Your task to perform on an android device: turn on improve location accuracy Image 0: 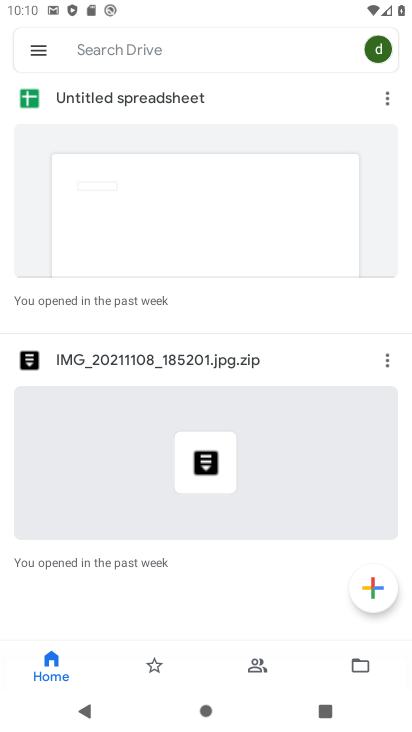
Step 0: press home button
Your task to perform on an android device: turn on improve location accuracy Image 1: 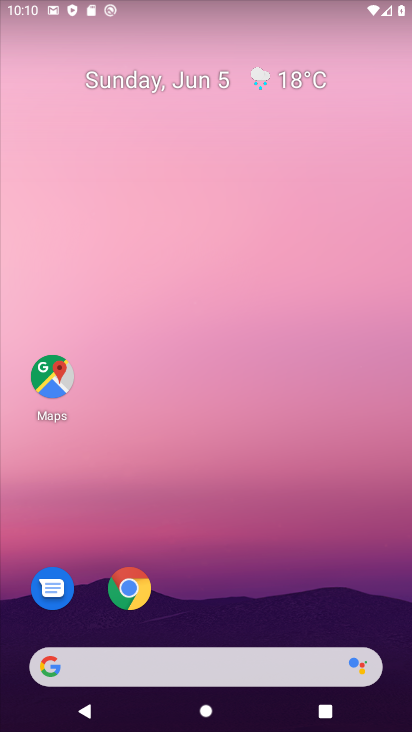
Step 1: drag from (299, 592) to (272, 232)
Your task to perform on an android device: turn on improve location accuracy Image 2: 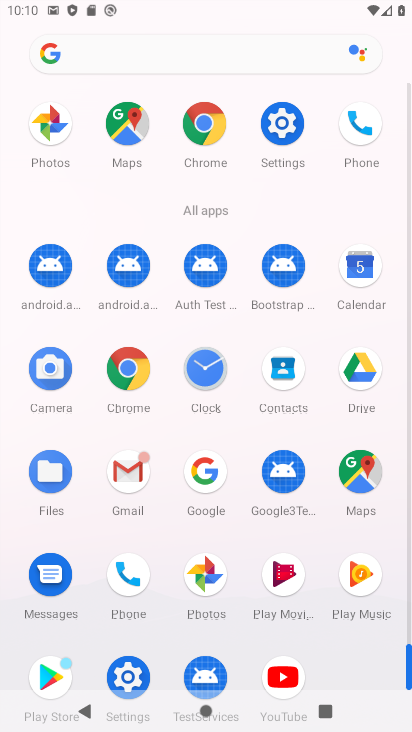
Step 2: click (138, 668)
Your task to perform on an android device: turn on improve location accuracy Image 3: 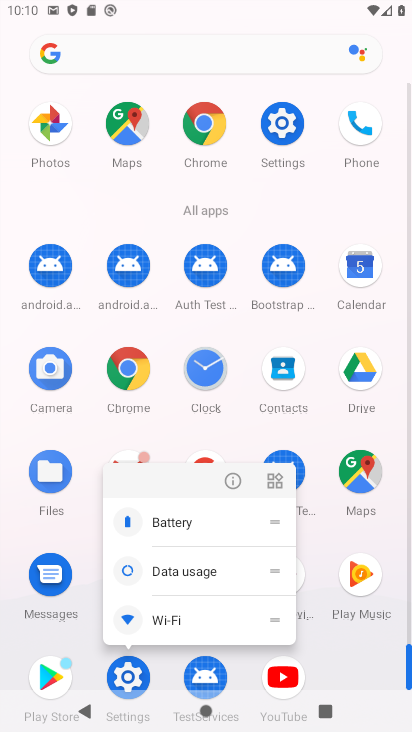
Step 3: click (285, 112)
Your task to perform on an android device: turn on improve location accuracy Image 4: 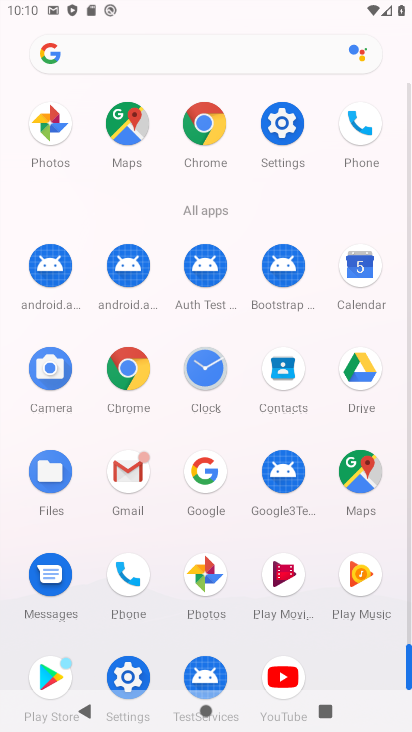
Step 4: drag from (178, 598) to (197, 315)
Your task to perform on an android device: turn on improve location accuracy Image 5: 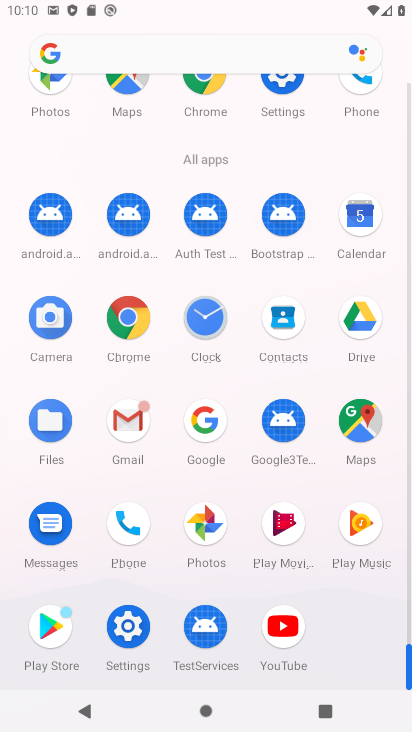
Step 5: click (131, 627)
Your task to perform on an android device: turn on improve location accuracy Image 6: 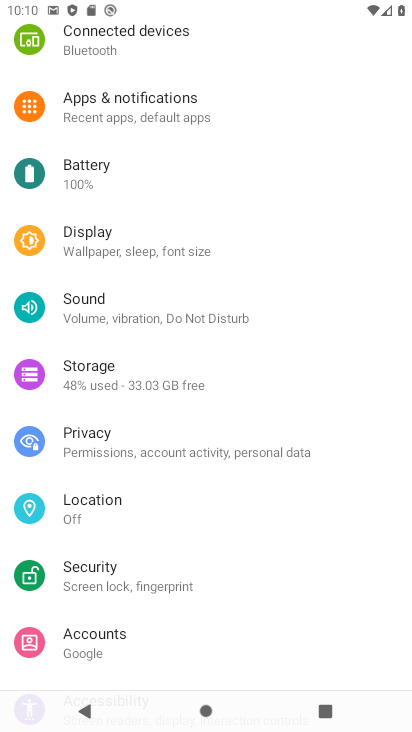
Step 6: click (125, 501)
Your task to perform on an android device: turn on improve location accuracy Image 7: 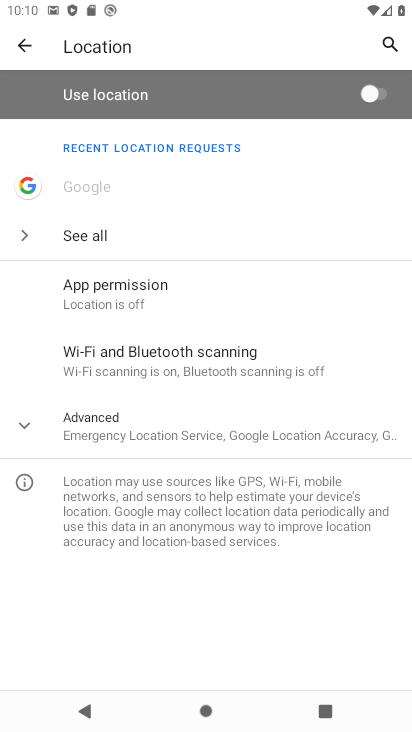
Step 7: click (220, 435)
Your task to perform on an android device: turn on improve location accuracy Image 8: 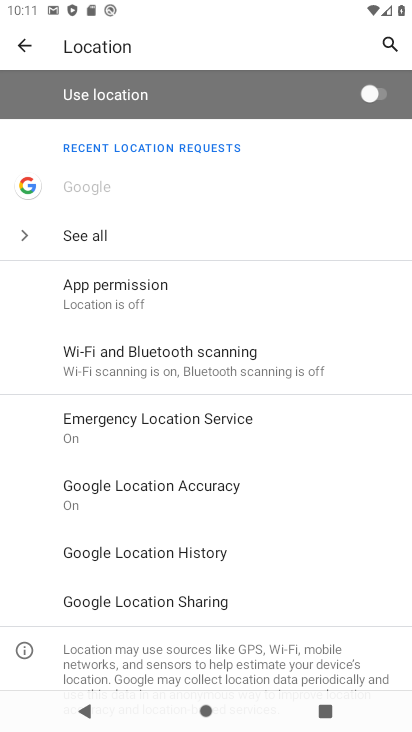
Step 8: click (216, 483)
Your task to perform on an android device: turn on improve location accuracy Image 9: 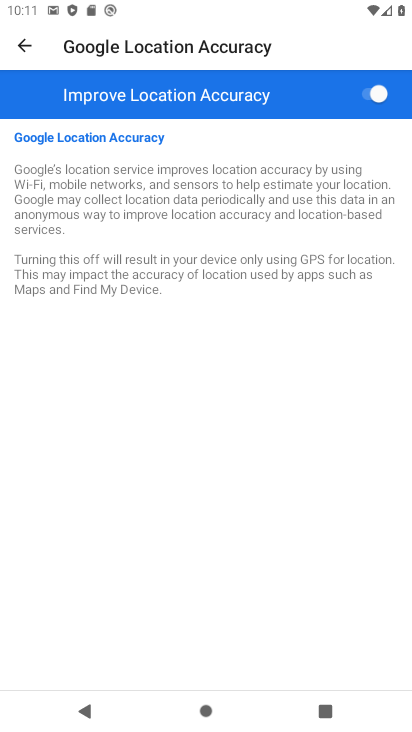
Step 9: task complete